Your task to perform on an android device: check data usage Image 0: 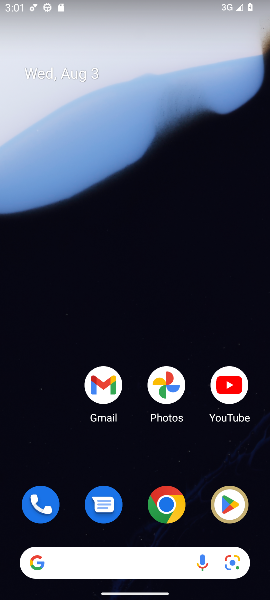
Step 0: drag from (128, 454) to (166, 27)
Your task to perform on an android device: check data usage Image 1: 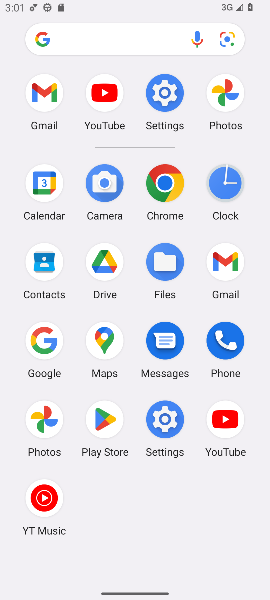
Step 1: click (175, 102)
Your task to perform on an android device: check data usage Image 2: 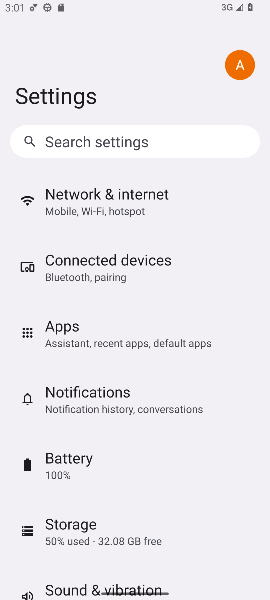
Step 2: click (123, 214)
Your task to perform on an android device: check data usage Image 3: 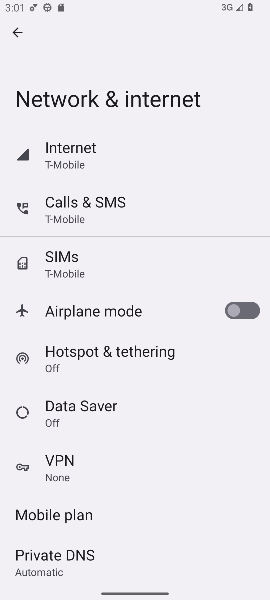
Step 3: click (86, 163)
Your task to perform on an android device: check data usage Image 4: 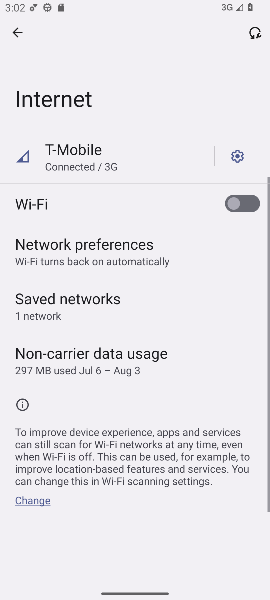
Step 4: click (238, 155)
Your task to perform on an android device: check data usage Image 5: 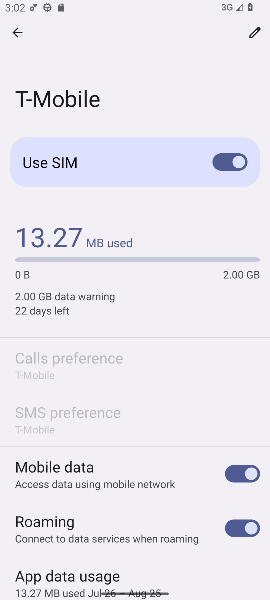
Step 5: task complete